Your task to perform on an android device: move an email to a new category in the gmail app Image 0: 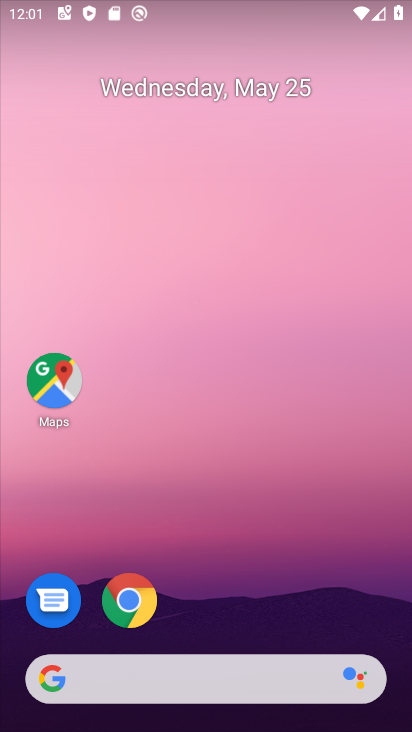
Step 0: drag from (268, 621) to (224, 0)
Your task to perform on an android device: move an email to a new category in the gmail app Image 1: 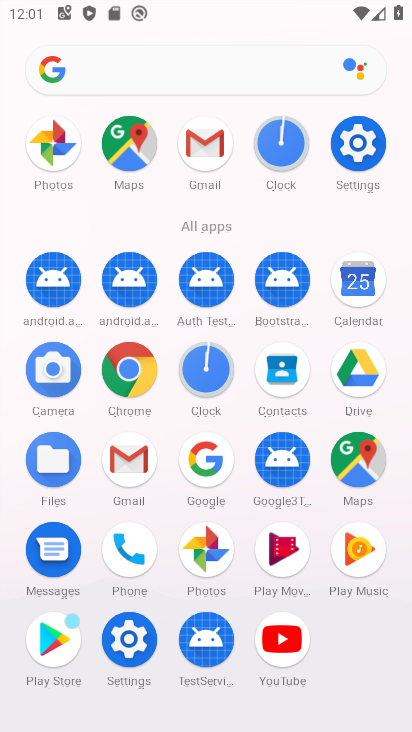
Step 1: click (121, 462)
Your task to perform on an android device: move an email to a new category in the gmail app Image 2: 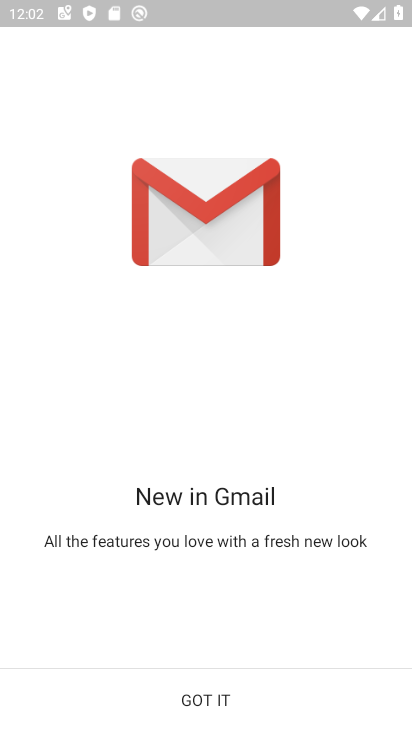
Step 2: click (196, 692)
Your task to perform on an android device: move an email to a new category in the gmail app Image 3: 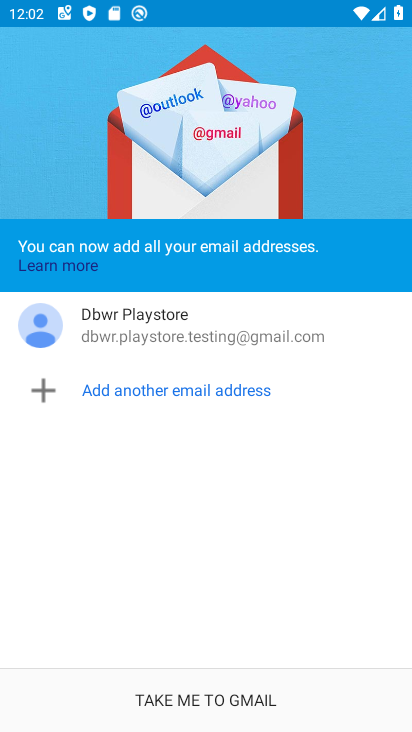
Step 3: click (187, 686)
Your task to perform on an android device: move an email to a new category in the gmail app Image 4: 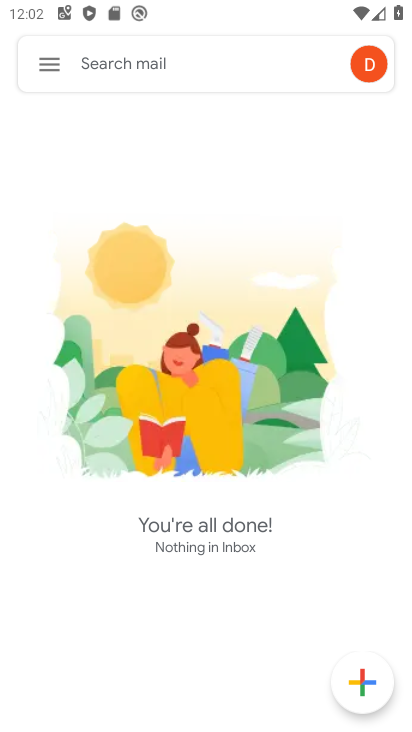
Step 4: click (38, 66)
Your task to perform on an android device: move an email to a new category in the gmail app Image 5: 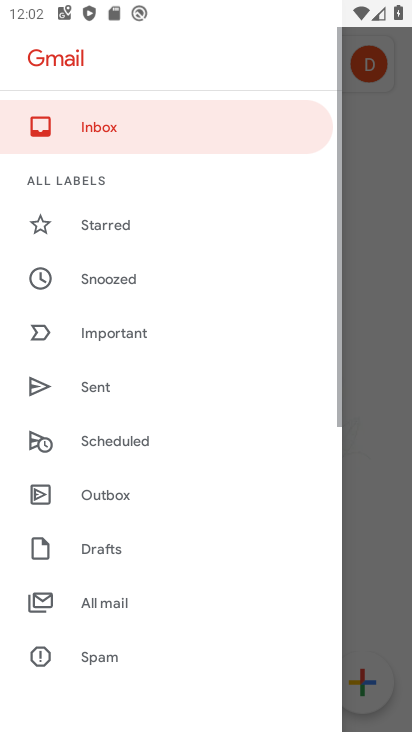
Step 5: drag from (177, 633) to (212, 232)
Your task to perform on an android device: move an email to a new category in the gmail app Image 6: 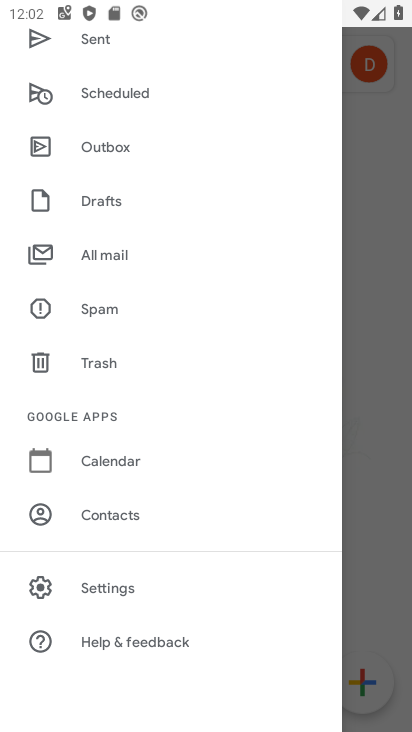
Step 6: click (121, 269)
Your task to perform on an android device: move an email to a new category in the gmail app Image 7: 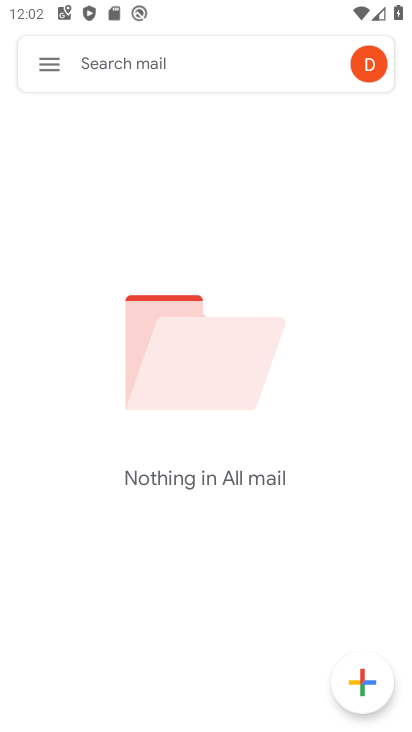
Step 7: task complete